Your task to perform on an android device: check out phone information Image 0: 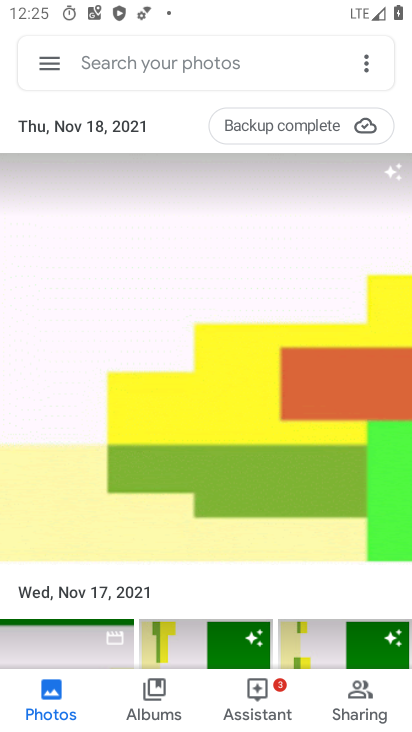
Step 0: press home button
Your task to perform on an android device: check out phone information Image 1: 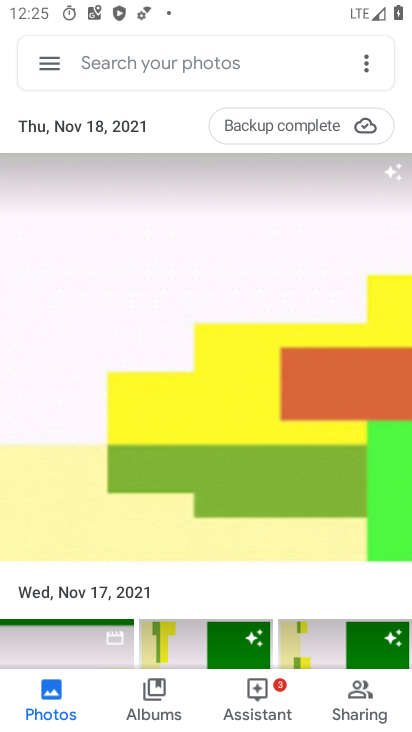
Step 1: press home button
Your task to perform on an android device: check out phone information Image 2: 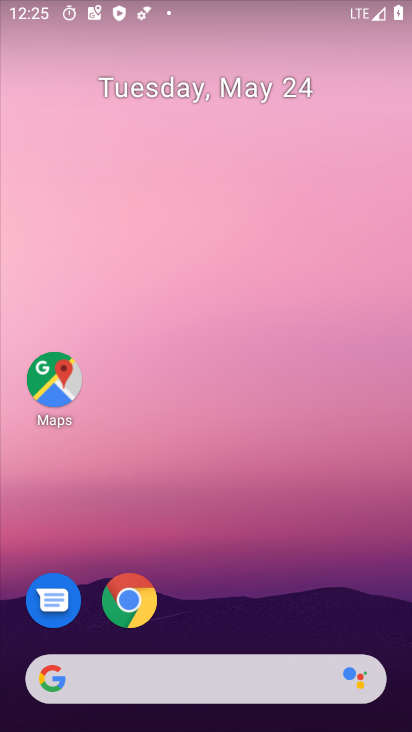
Step 2: drag from (306, 504) to (278, 62)
Your task to perform on an android device: check out phone information Image 3: 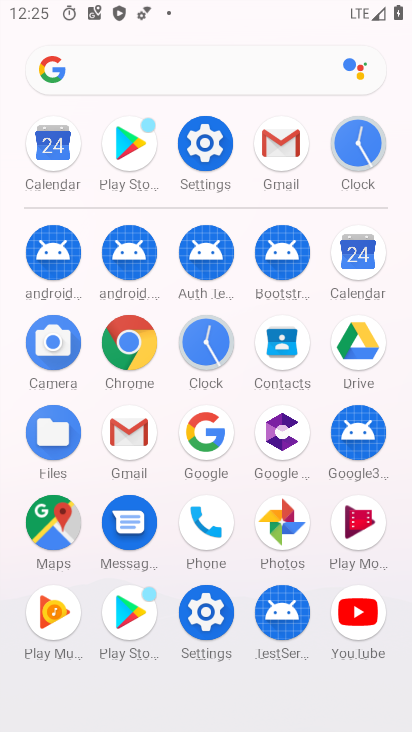
Step 3: click (201, 515)
Your task to perform on an android device: check out phone information Image 4: 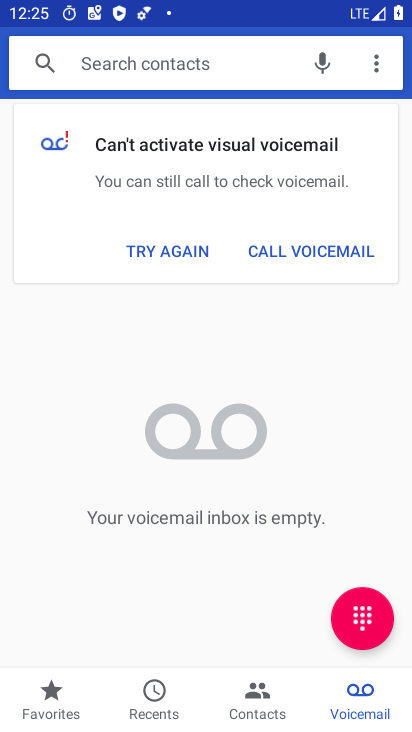
Step 4: click (383, 59)
Your task to perform on an android device: check out phone information Image 5: 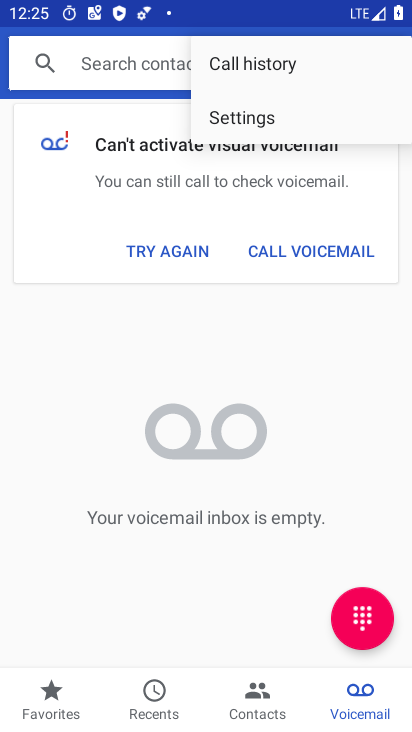
Step 5: click (296, 120)
Your task to perform on an android device: check out phone information Image 6: 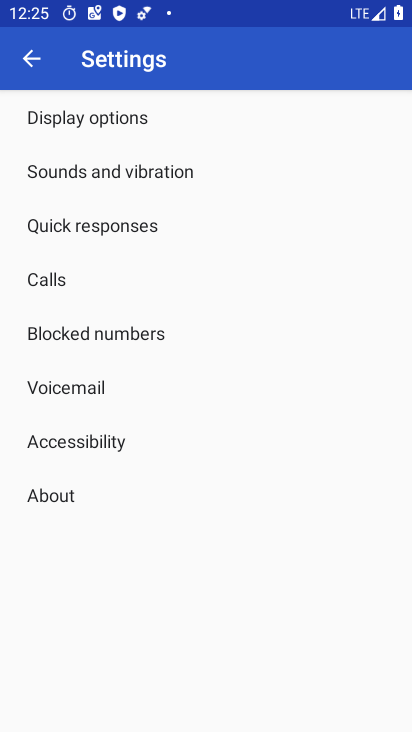
Step 6: click (41, 509)
Your task to perform on an android device: check out phone information Image 7: 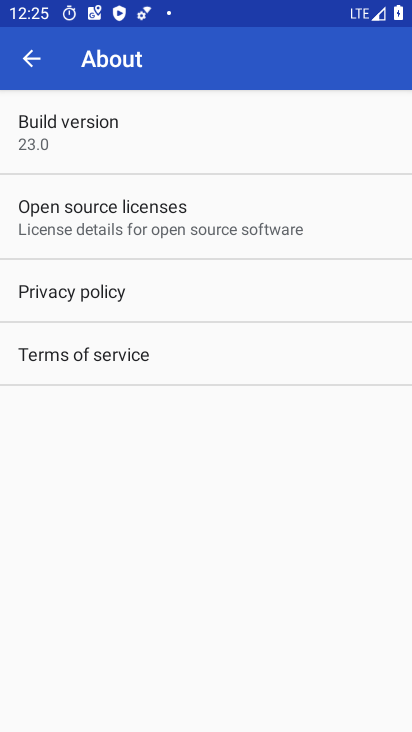
Step 7: click (42, 53)
Your task to perform on an android device: check out phone information Image 8: 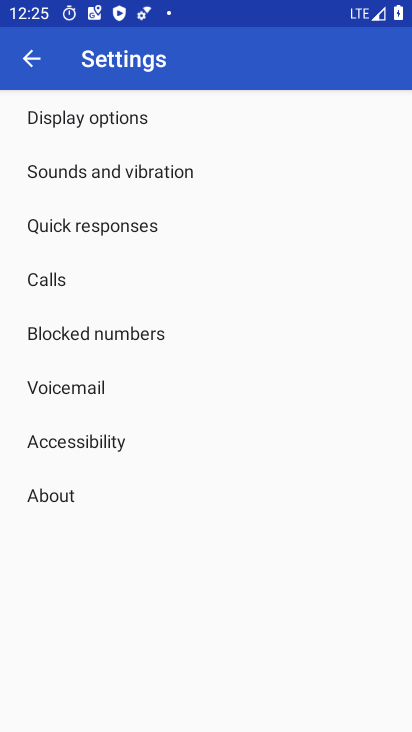
Step 8: click (73, 441)
Your task to perform on an android device: check out phone information Image 9: 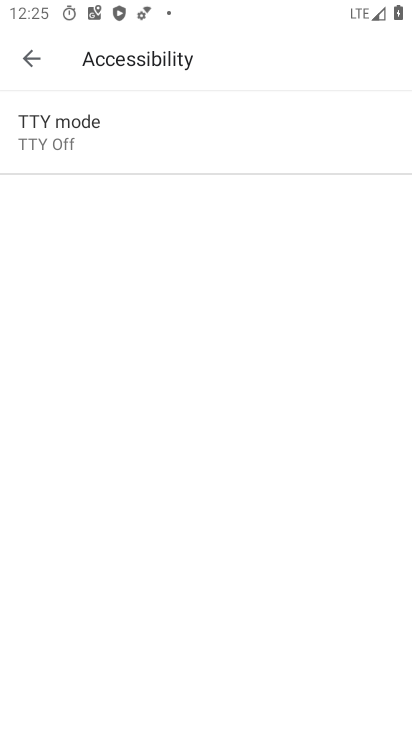
Step 9: click (37, 56)
Your task to perform on an android device: check out phone information Image 10: 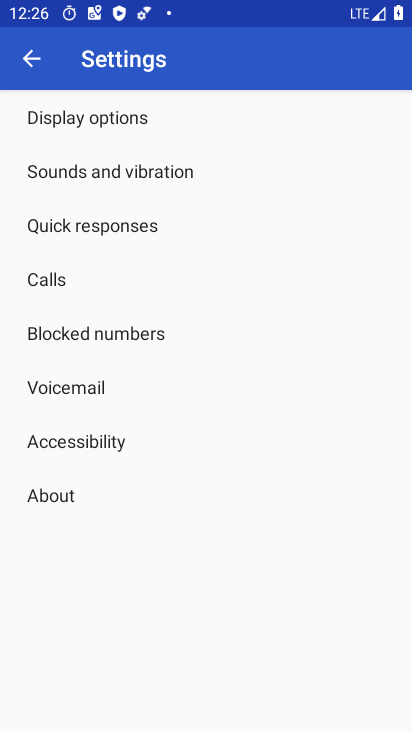
Step 10: click (116, 120)
Your task to perform on an android device: check out phone information Image 11: 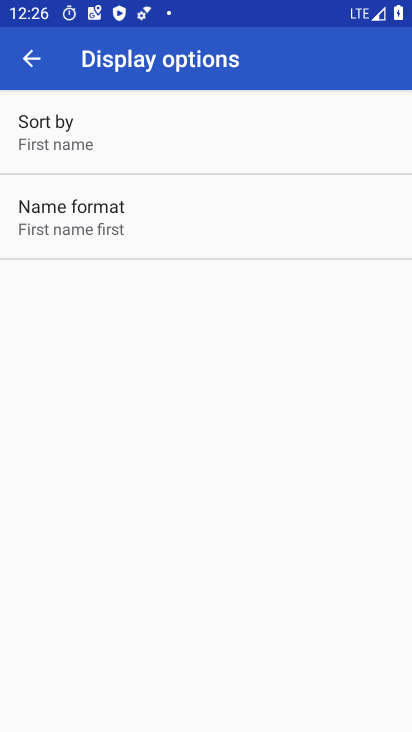
Step 11: click (33, 52)
Your task to perform on an android device: check out phone information Image 12: 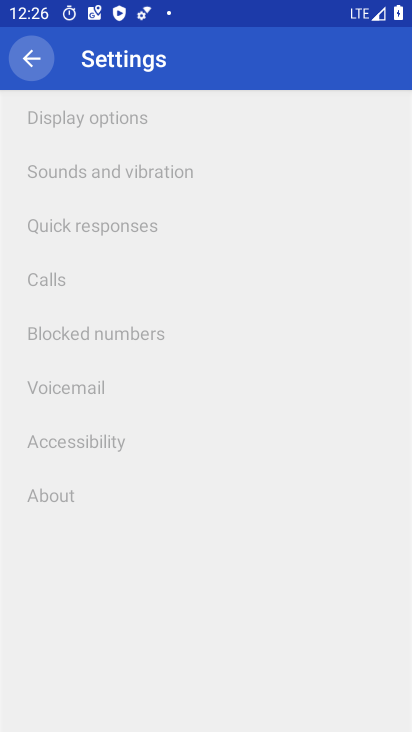
Step 12: click (33, 52)
Your task to perform on an android device: check out phone information Image 13: 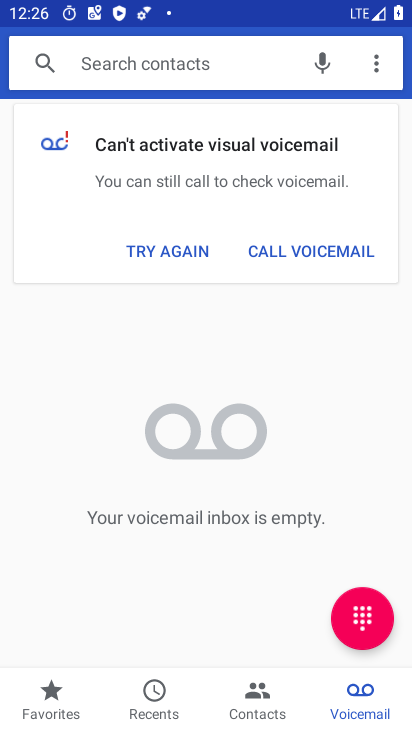
Step 13: press home button
Your task to perform on an android device: check out phone information Image 14: 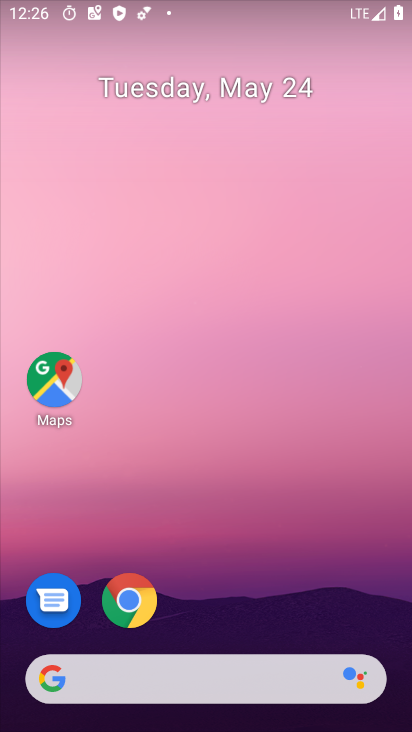
Step 14: drag from (216, 625) to (285, 164)
Your task to perform on an android device: check out phone information Image 15: 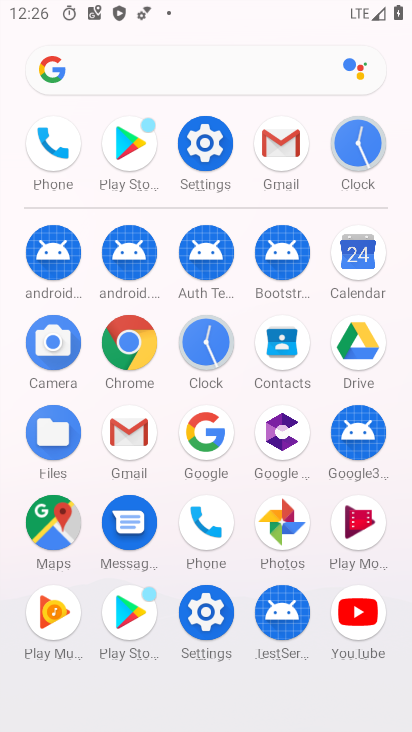
Step 15: click (200, 522)
Your task to perform on an android device: check out phone information Image 16: 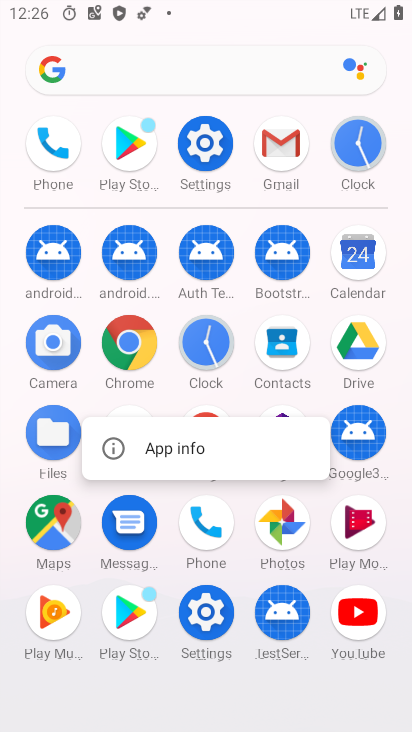
Step 16: click (212, 439)
Your task to perform on an android device: check out phone information Image 17: 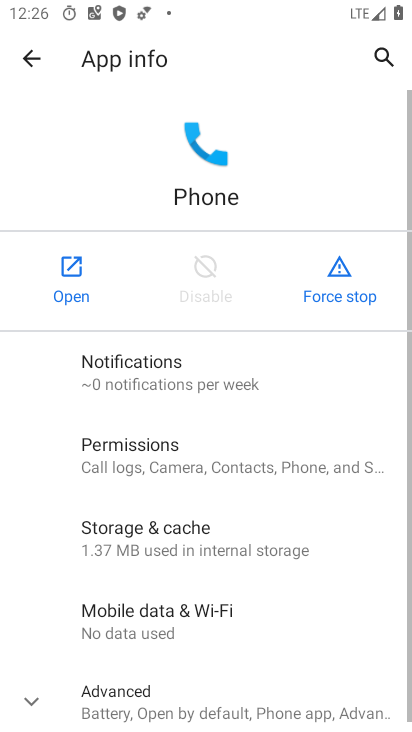
Step 17: task complete